Your task to perform on an android device: toggle priority inbox in the gmail app Image 0: 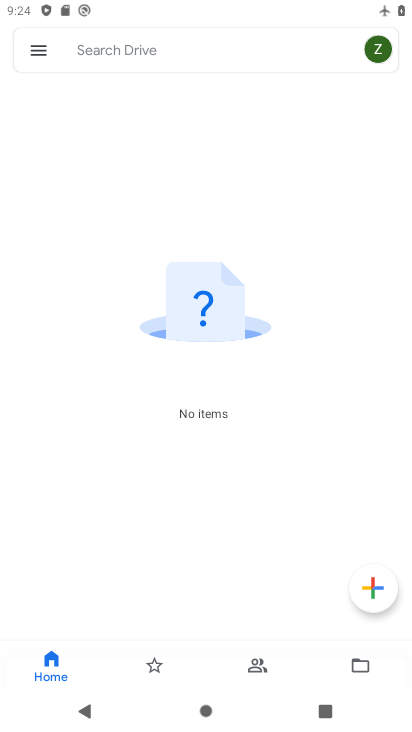
Step 0: press back button
Your task to perform on an android device: toggle priority inbox in the gmail app Image 1: 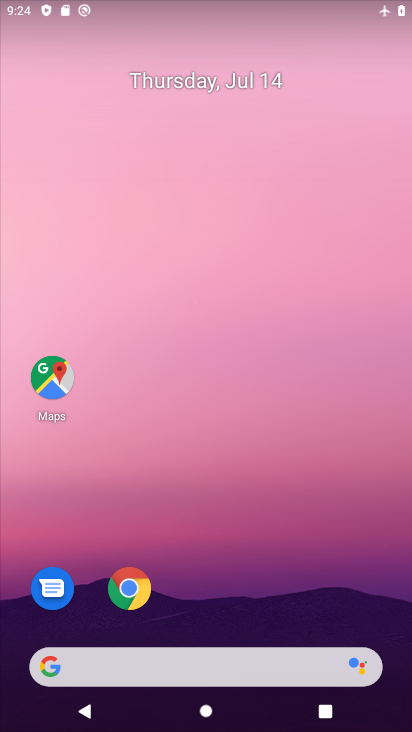
Step 1: drag from (236, 602) to (260, 6)
Your task to perform on an android device: toggle priority inbox in the gmail app Image 2: 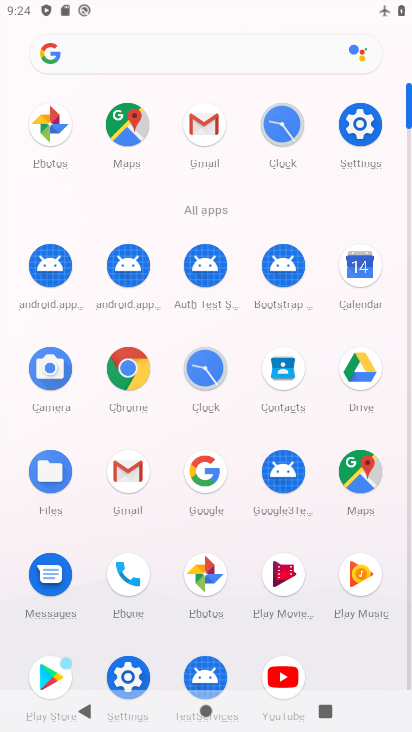
Step 2: click (197, 119)
Your task to perform on an android device: toggle priority inbox in the gmail app Image 3: 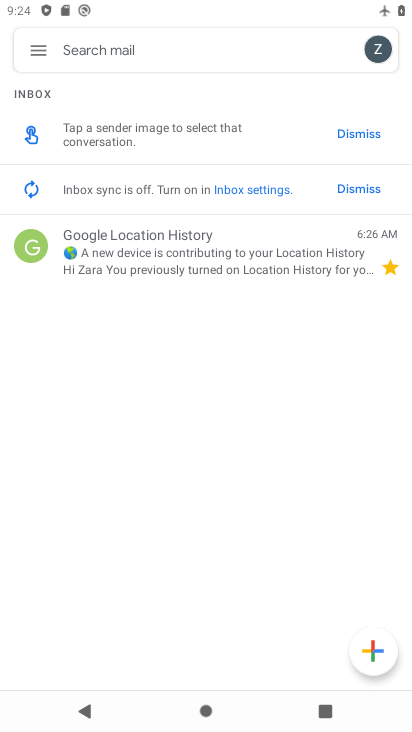
Step 3: click (39, 45)
Your task to perform on an android device: toggle priority inbox in the gmail app Image 4: 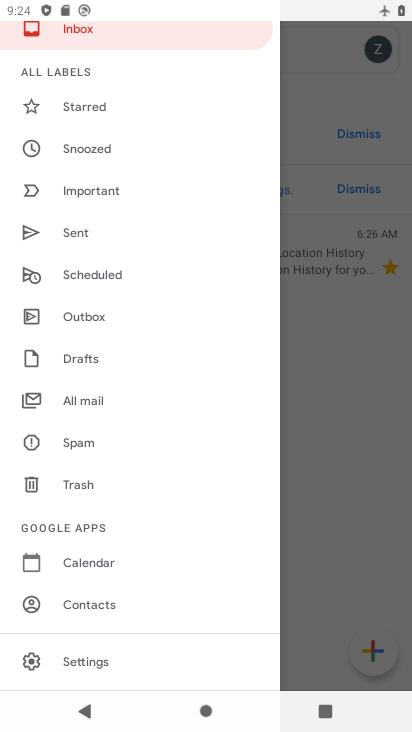
Step 4: click (108, 652)
Your task to perform on an android device: toggle priority inbox in the gmail app Image 5: 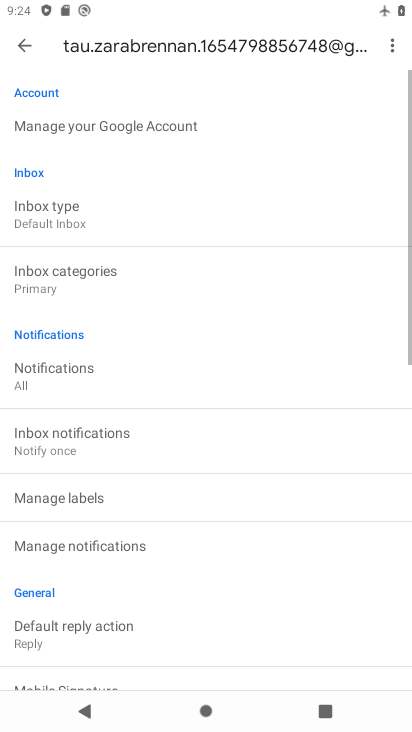
Step 5: click (97, 199)
Your task to perform on an android device: toggle priority inbox in the gmail app Image 6: 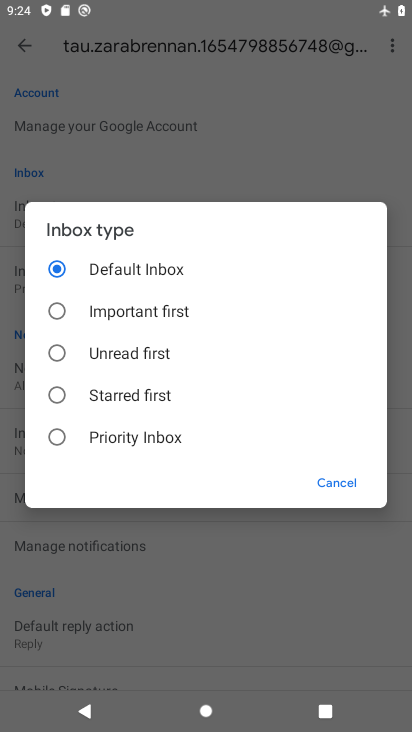
Step 6: click (58, 434)
Your task to perform on an android device: toggle priority inbox in the gmail app Image 7: 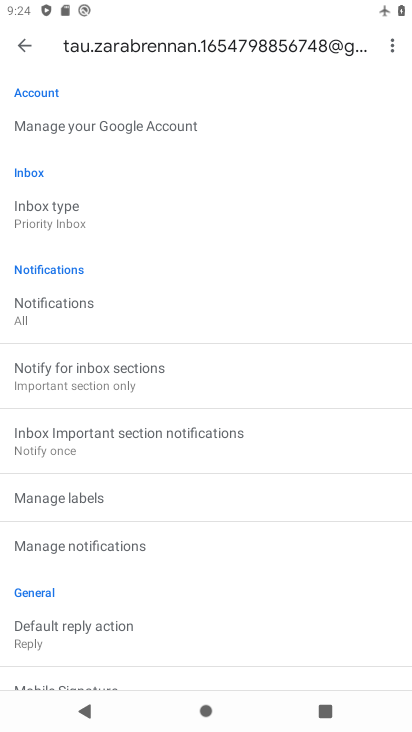
Step 7: task complete